Your task to perform on an android device: change the clock display to show seconds Image 0: 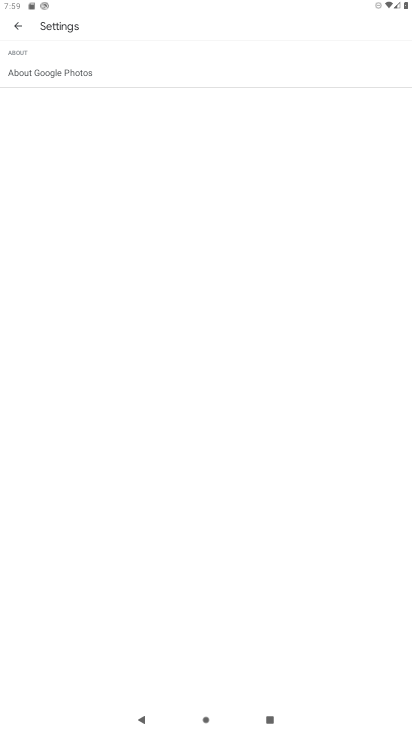
Step 0: click (208, 655)
Your task to perform on an android device: change the clock display to show seconds Image 1: 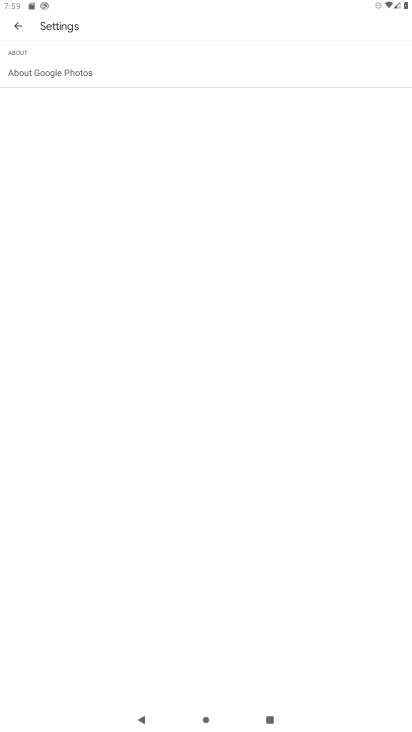
Step 1: press home button
Your task to perform on an android device: change the clock display to show seconds Image 2: 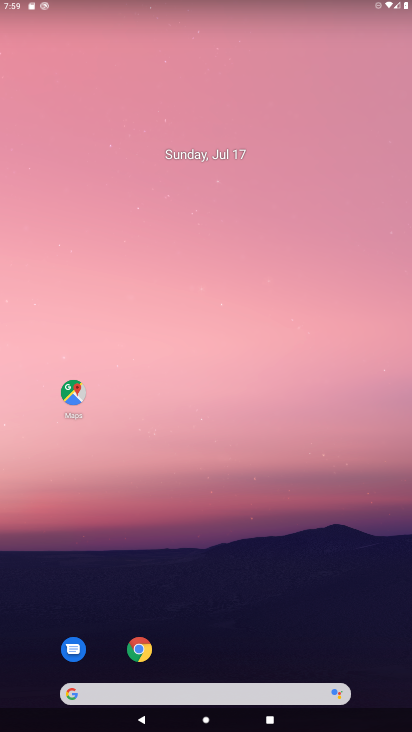
Step 2: drag from (201, 678) to (128, 159)
Your task to perform on an android device: change the clock display to show seconds Image 3: 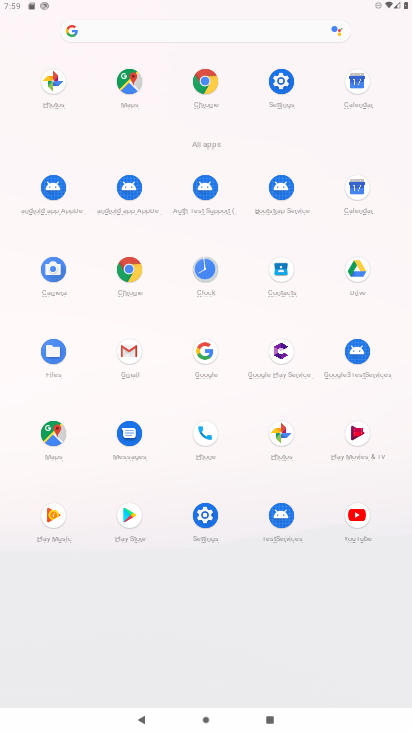
Step 3: click (208, 265)
Your task to perform on an android device: change the clock display to show seconds Image 4: 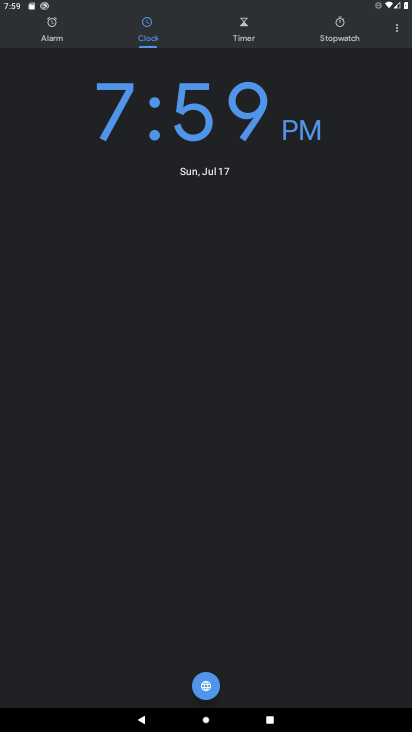
Step 4: click (395, 34)
Your task to perform on an android device: change the clock display to show seconds Image 5: 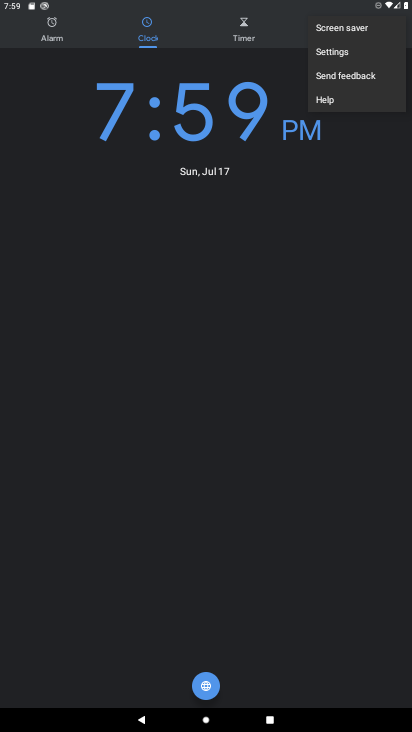
Step 5: click (331, 52)
Your task to perform on an android device: change the clock display to show seconds Image 6: 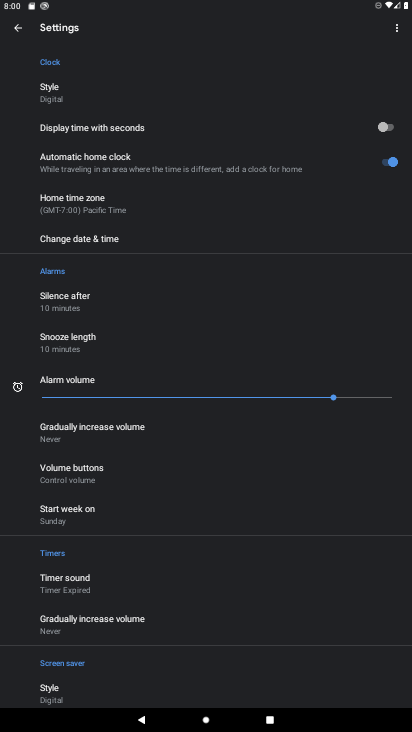
Step 6: click (377, 129)
Your task to perform on an android device: change the clock display to show seconds Image 7: 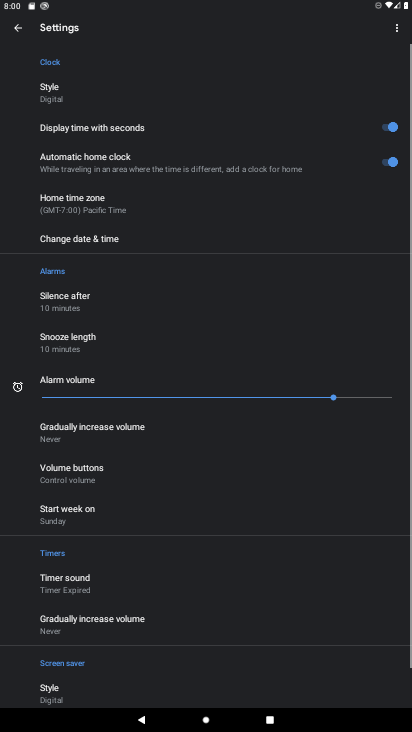
Step 7: task complete